Your task to perform on an android device: turn off wifi Image 0: 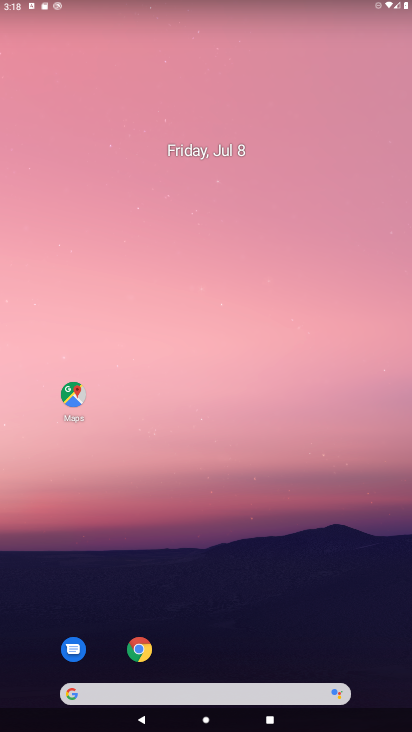
Step 0: drag from (369, 634) to (313, 93)
Your task to perform on an android device: turn off wifi Image 1: 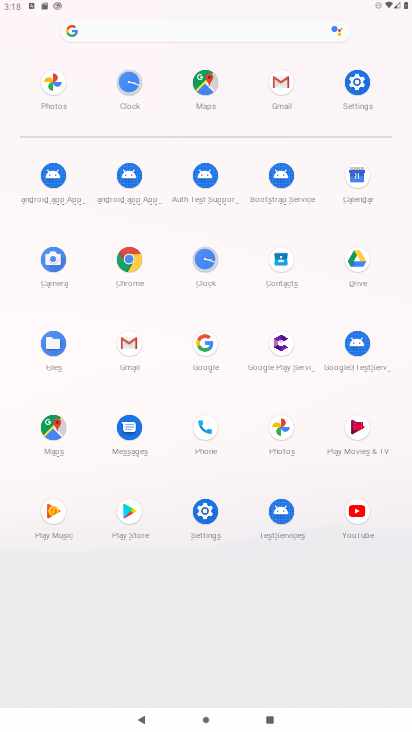
Step 1: click (204, 508)
Your task to perform on an android device: turn off wifi Image 2: 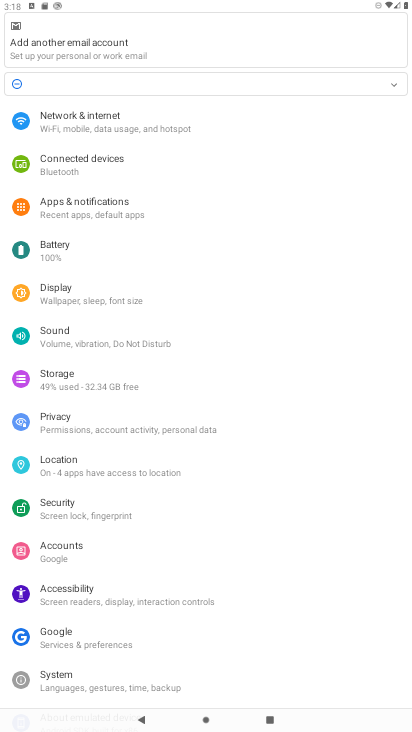
Step 2: click (72, 115)
Your task to perform on an android device: turn off wifi Image 3: 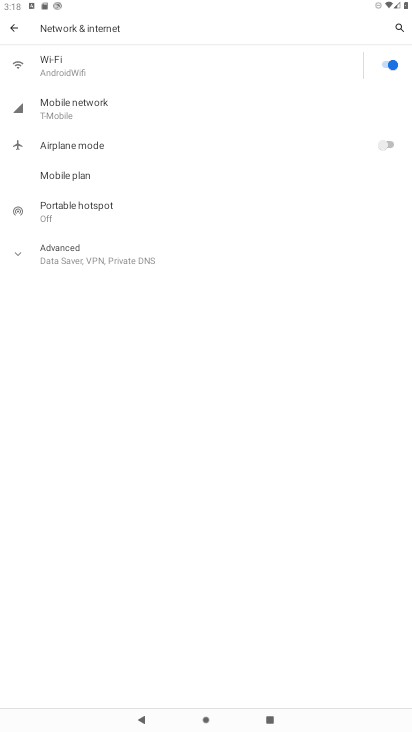
Step 3: click (380, 64)
Your task to perform on an android device: turn off wifi Image 4: 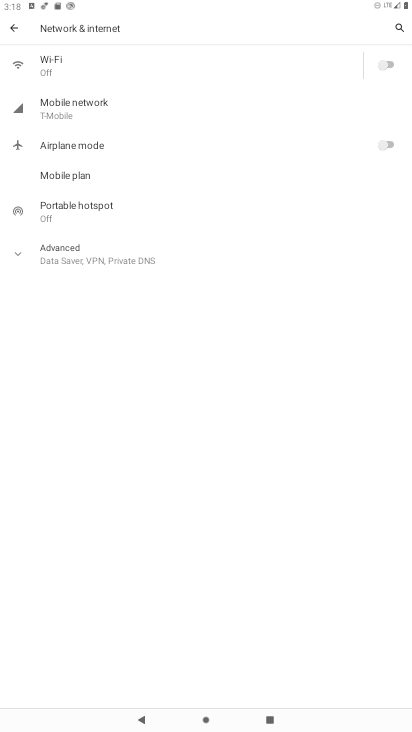
Step 4: task complete